Your task to perform on an android device: allow cookies in the chrome app Image 0: 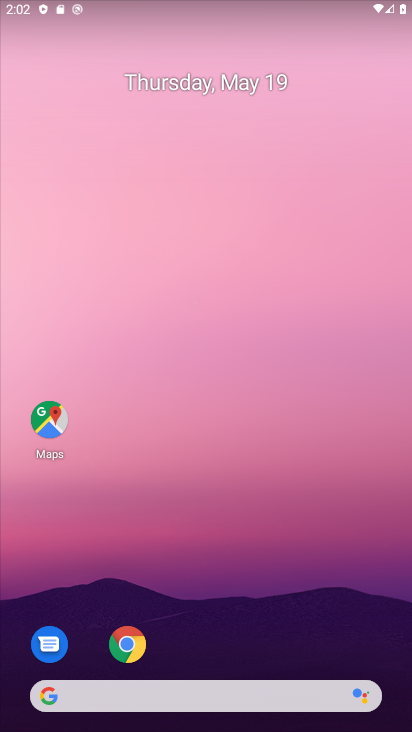
Step 0: drag from (281, 625) to (245, 239)
Your task to perform on an android device: allow cookies in the chrome app Image 1: 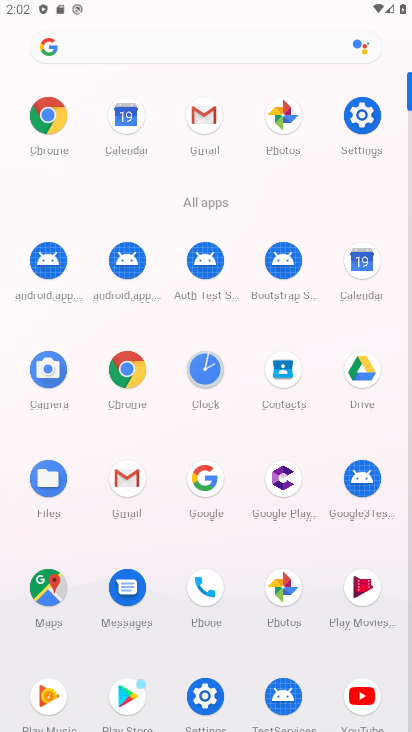
Step 1: click (362, 102)
Your task to perform on an android device: allow cookies in the chrome app Image 2: 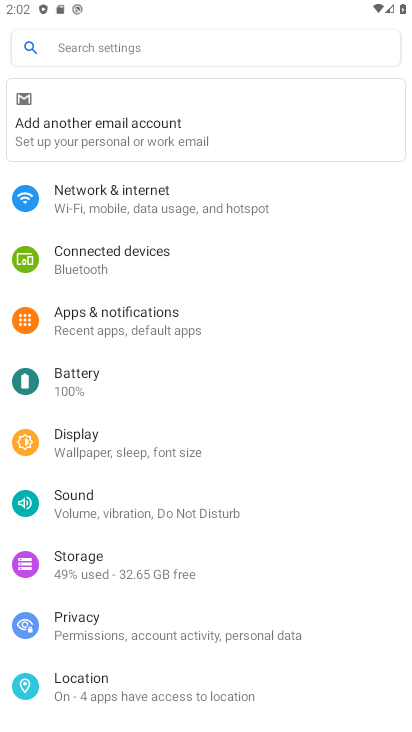
Step 2: press back button
Your task to perform on an android device: allow cookies in the chrome app Image 3: 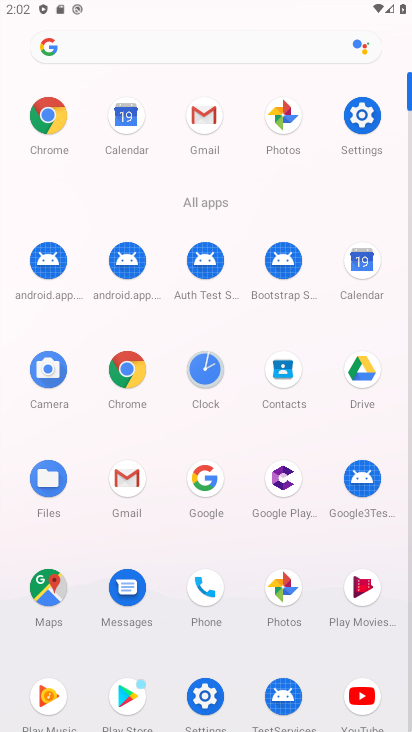
Step 3: click (127, 371)
Your task to perform on an android device: allow cookies in the chrome app Image 4: 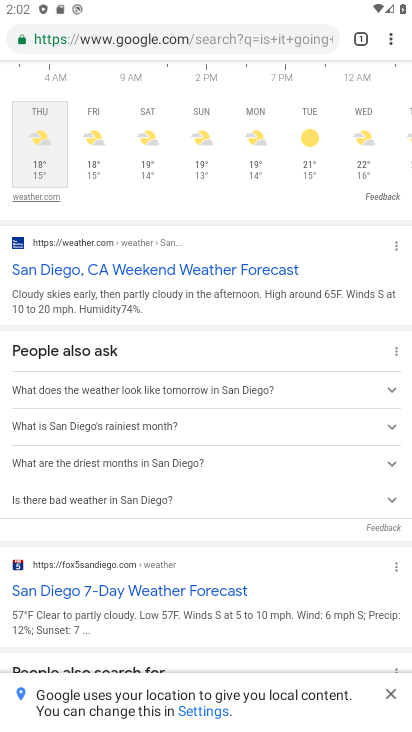
Step 4: click (384, 33)
Your task to perform on an android device: allow cookies in the chrome app Image 5: 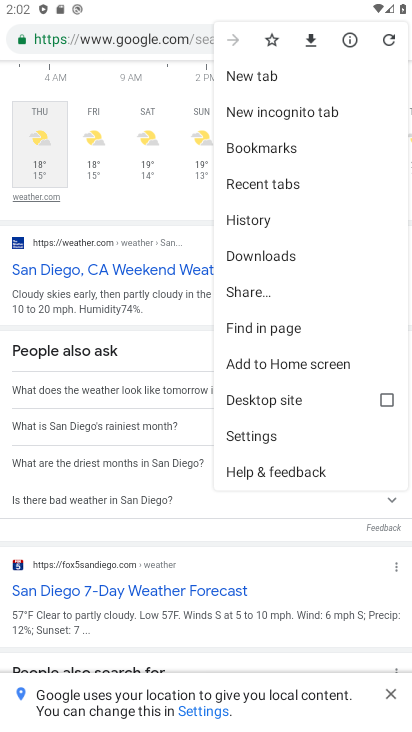
Step 5: click (260, 432)
Your task to perform on an android device: allow cookies in the chrome app Image 6: 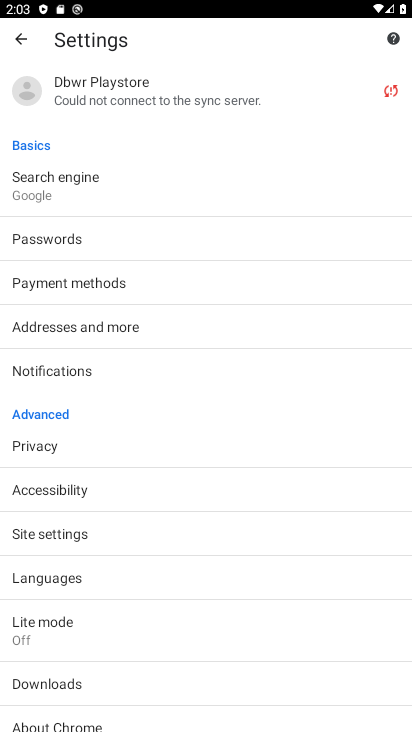
Step 6: click (90, 534)
Your task to perform on an android device: allow cookies in the chrome app Image 7: 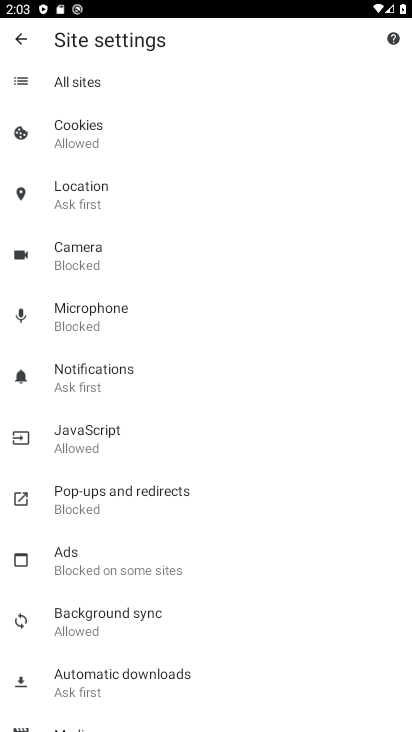
Step 7: click (85, 128)
Your task to perform on an android device: allow cookies in the chrome app Image 8: 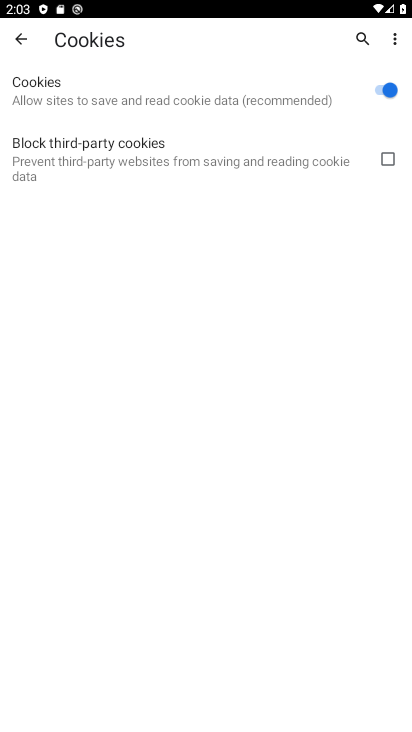
Step 8: task complete